Your task to perform on an android device: Go to Amazon Image 0: 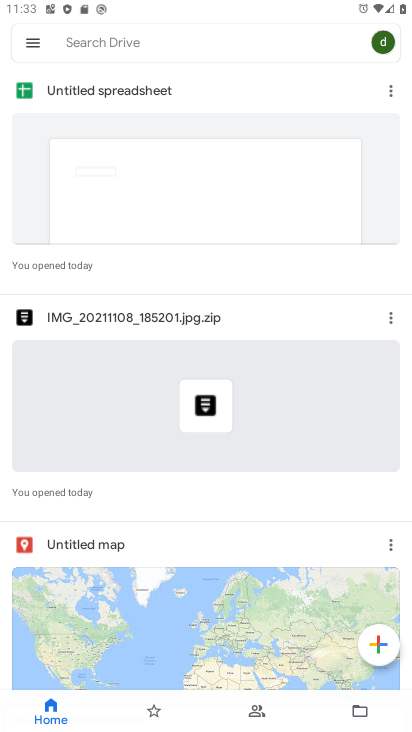
Step 0: press home button
Your task to perform on an android device: Go to Amazon Image 1: 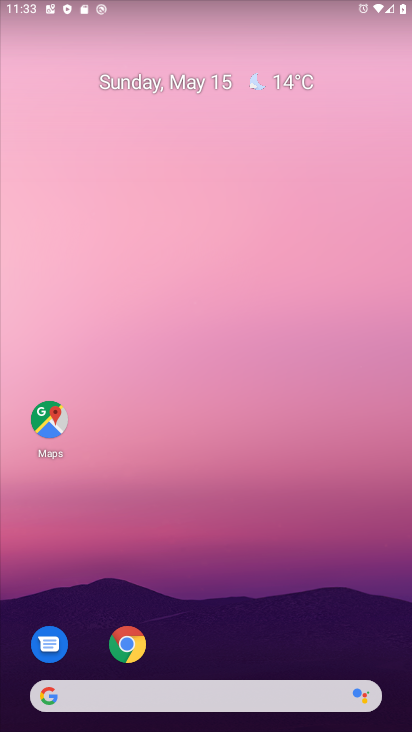
Step 1: click (134, 649)
Your task to perform on an android device: Go to Amazon Image 2: 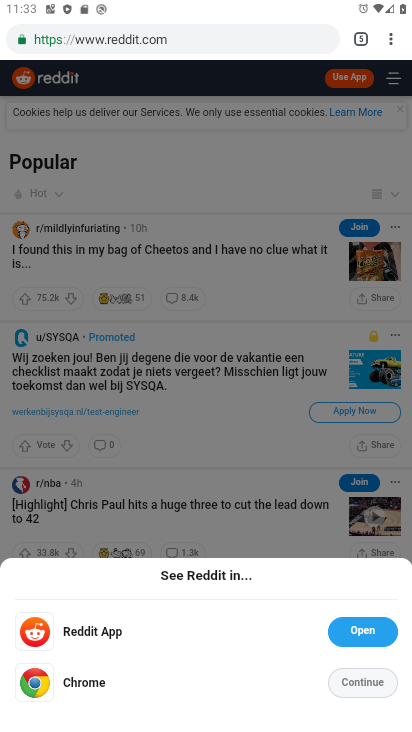
Step 2: click (356, 35)
Your task to perform on an android device: Go to Amazon Image 3: 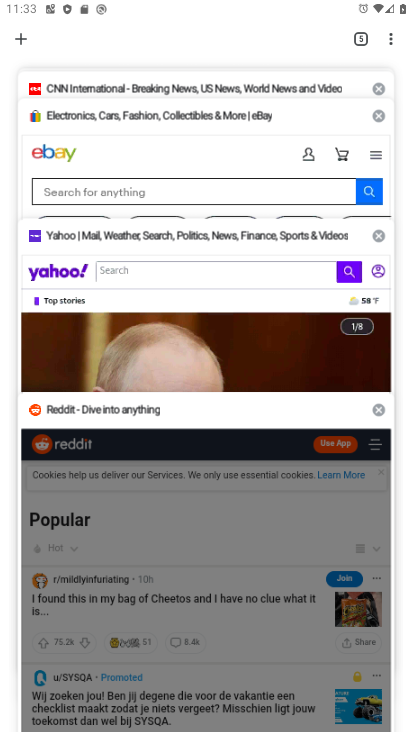
Step 3: click (19, 31)
Your task to perform on an android device: Go to Amazon Image 4: 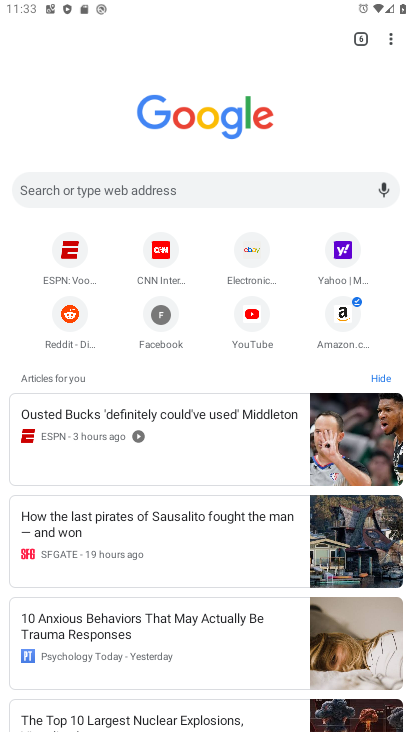
Step 4: click (343, 316)
Your task to perform on an android device: Go to Amazon Image 5: 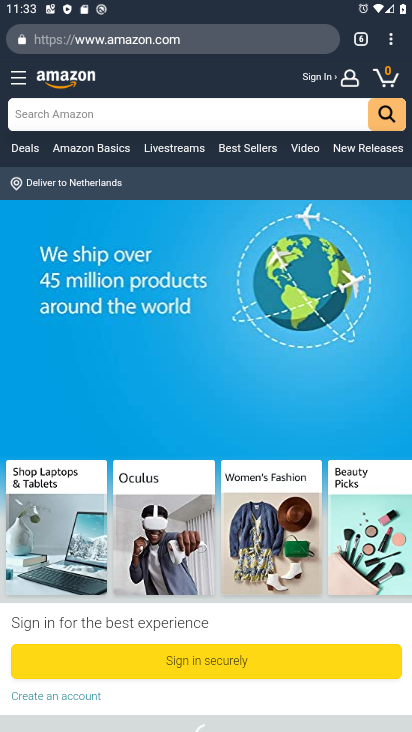
Step 5: task complete